Your task to perform on an android device: turn off sleep mode Image 0: 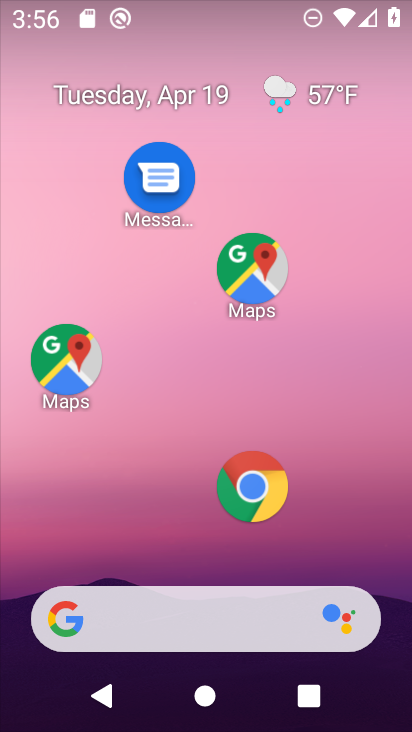
Step 0: drag from (177, 554) to (286, 152)
Your task to perform on an android device: turn off sleep mode Image 1: 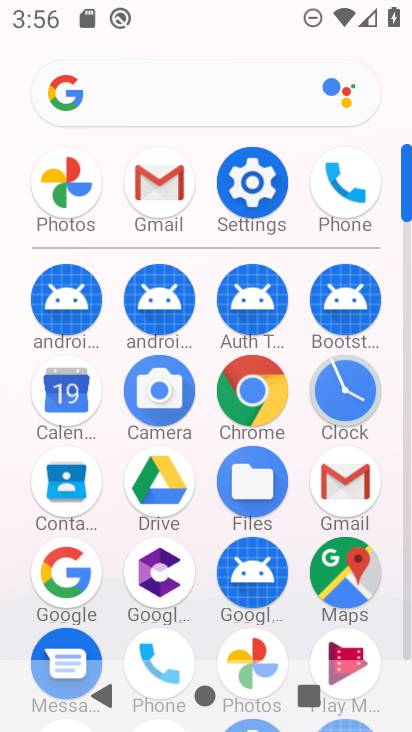
Step 1: click (252, 185)
Your task to perform on an android device: turn off sleep mode Image 2: 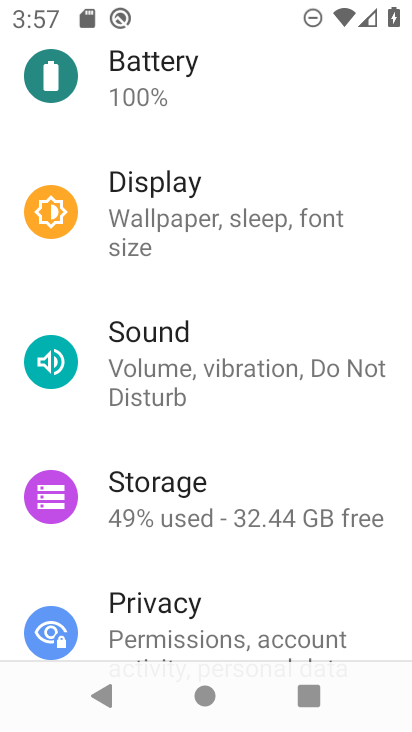
Step 2: task complete